Your task to perform on an android device: Open Google Image 0: 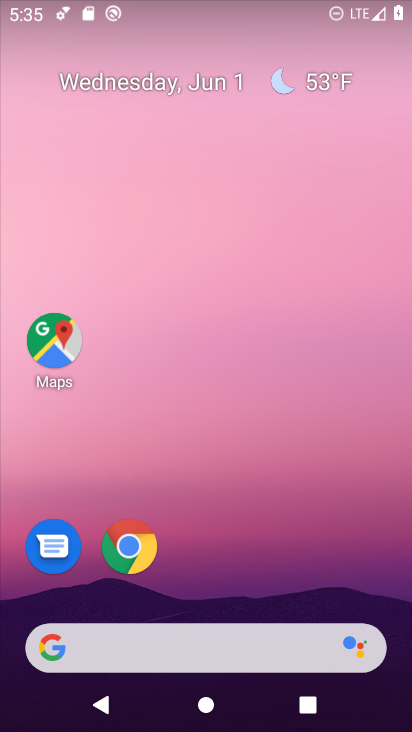
Step 0: drag from (351, 513) to (238, 5)
Your task to perform on an android device: Open Google Image 1: 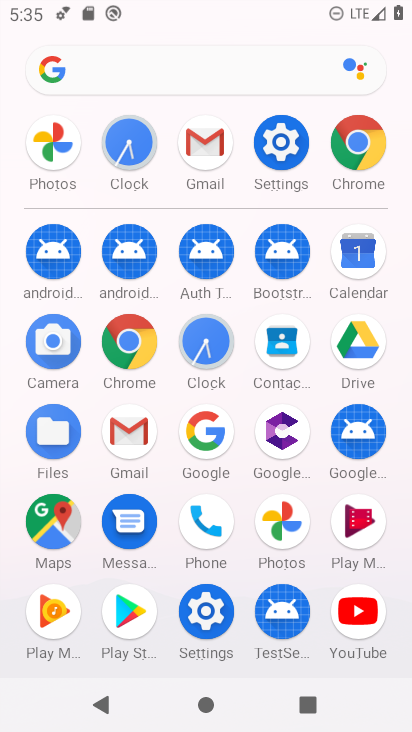
Step 1: drag from (15, 585) to (9, 217)
Your task to perform on an android device: Open Google Image 2: 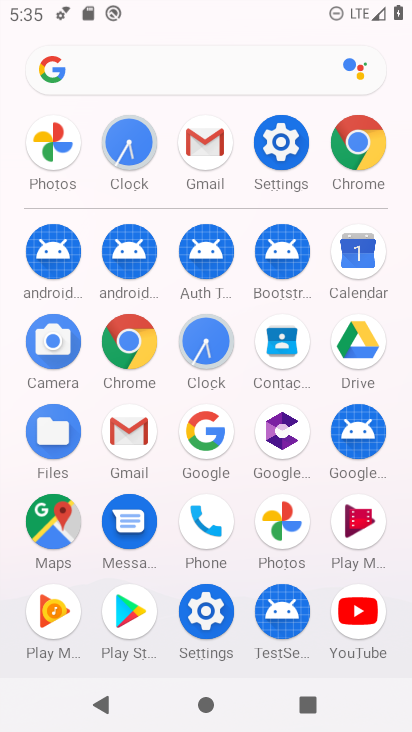
Step 2: click (122, 330)
Your task to perform on an android device: Open Google Image 3: 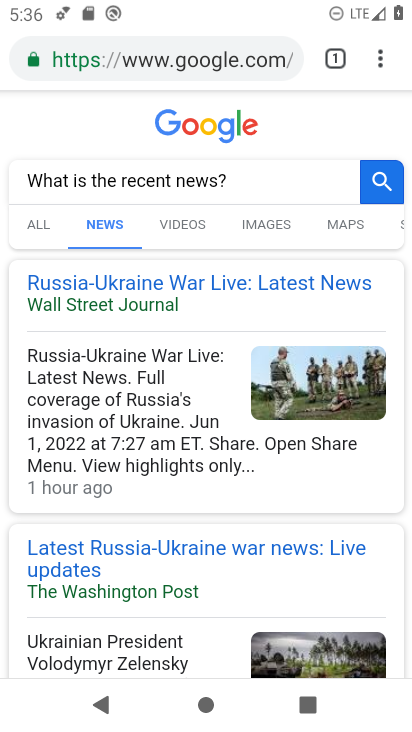
Step 3: click (171, 58)
Your task to perform on an android device: Open Google Image 4: 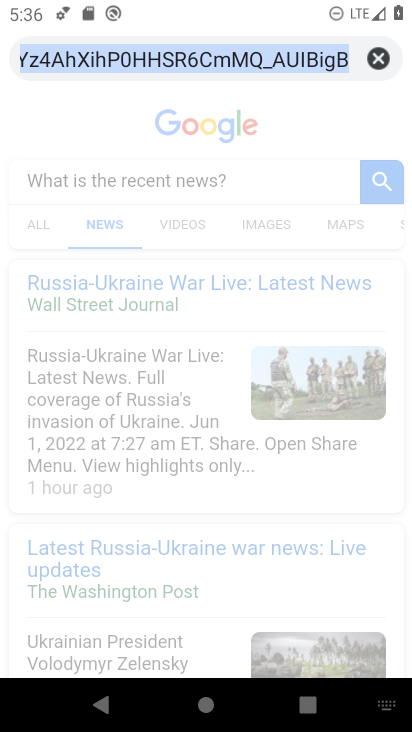
Step 4: click (373, 60)
Your task to perform on an android device: Open Google Image 5: 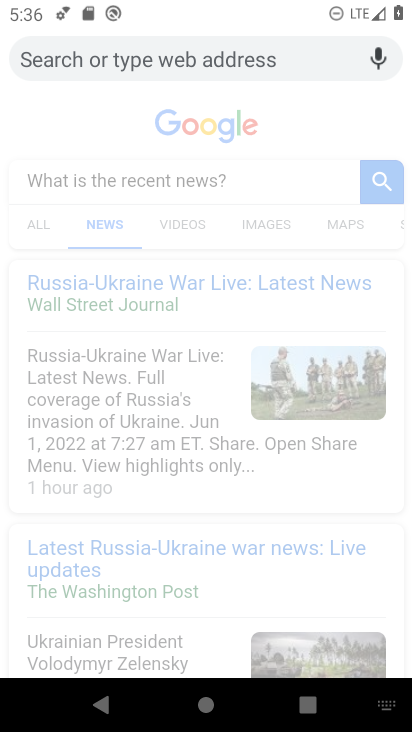
Step 5: type "Google"
Your task to perform on an android device: Open Google Image 6: 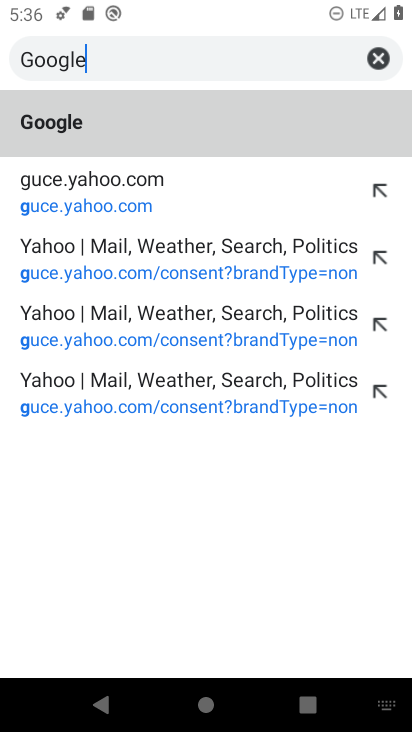
Step 6: type ""
Your task to perform on an android device: Open Google Image 7: 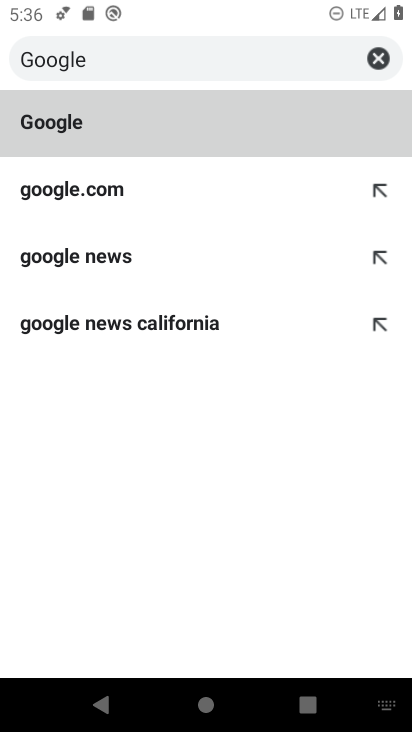
Step 7: click (103, 195)
Your task to perform on an android device: Open Google Image 8: 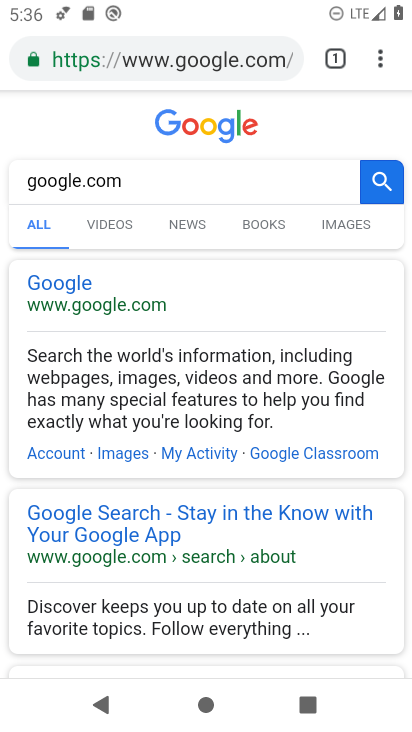
Step 8: click (92, 282)
Your task to perform on an android device: Open Google Image 9: 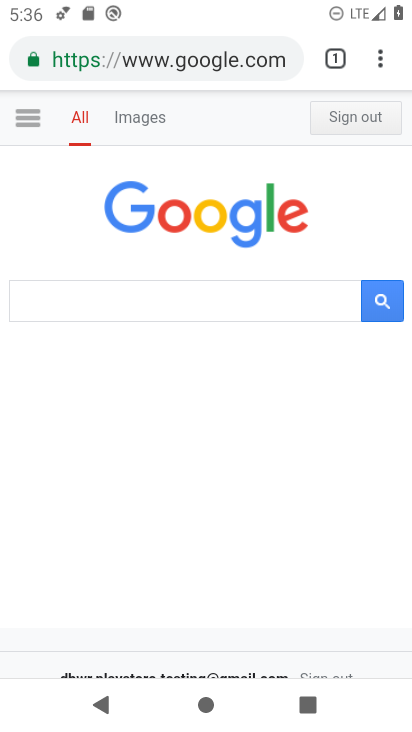
Step 9: task complete